Your task to perform on an android device: Open the Play Movies app and select the watchlist tab. Image 0: 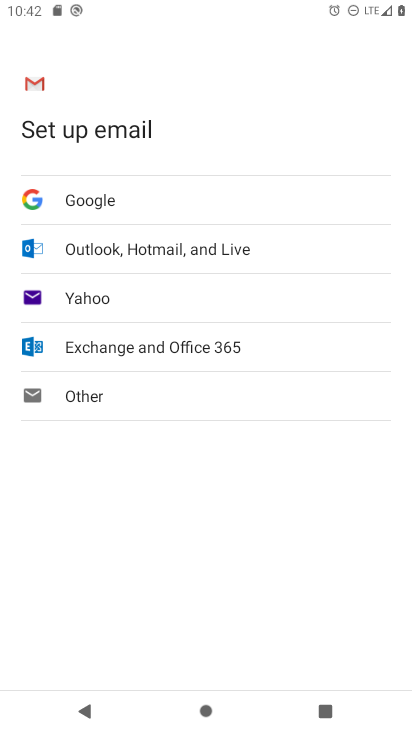
Step 0: press home button
Your task to perform on an android device: Open the Play Movies app and select the watchlist tab. Image 1: 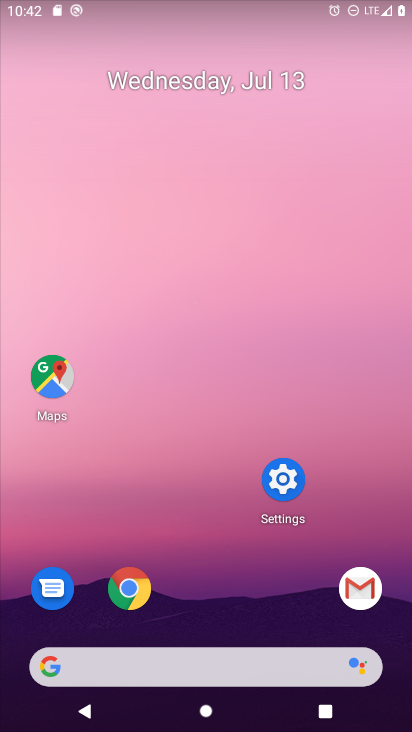
Step 1: drag from (257, 676) to (160, 235)
Your task to perform on an android device: Open the Play Movies app and select the watchlist tab. Image 2: 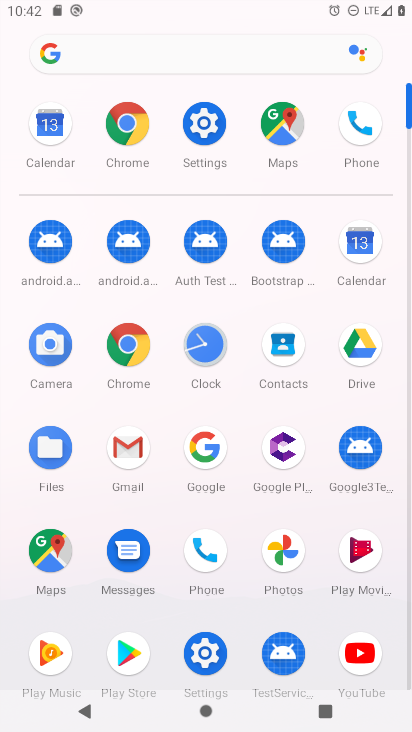
Step 2: click (345, 569)
Your task to perform on an android device: Open the Play Movies app and select the watchlist tab. Image 3: 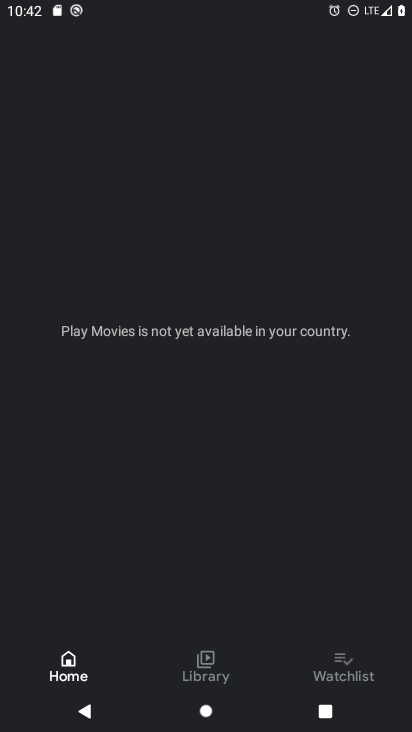
Step 3: click (340, 676)
Your task to perform on an android device: Open the Play Movies app and select the watchlist tab. Image 4: 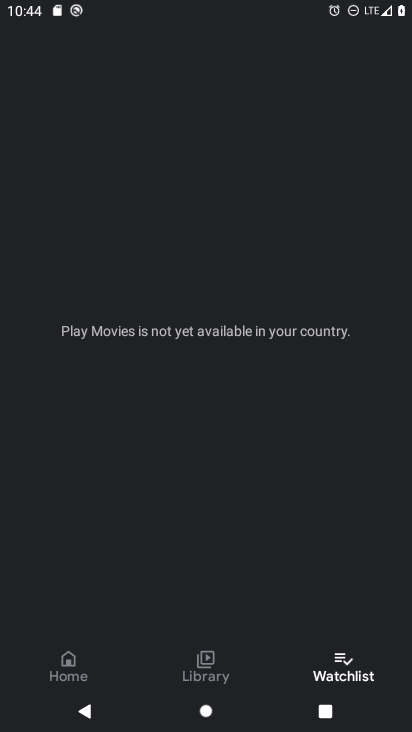
Step 4: task complete